Your task to perform on an android device: remove spam from my inbox in the gmail app Image 0: 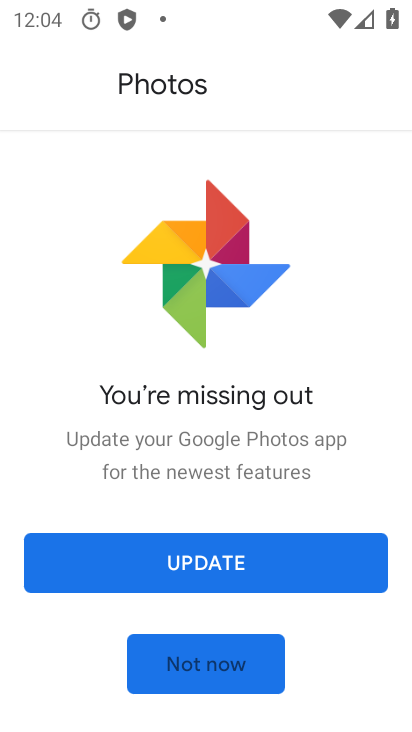
Step 0: press home button
Your task to perform on an android device: remove spam from my inbox in the gmail app Image 1: 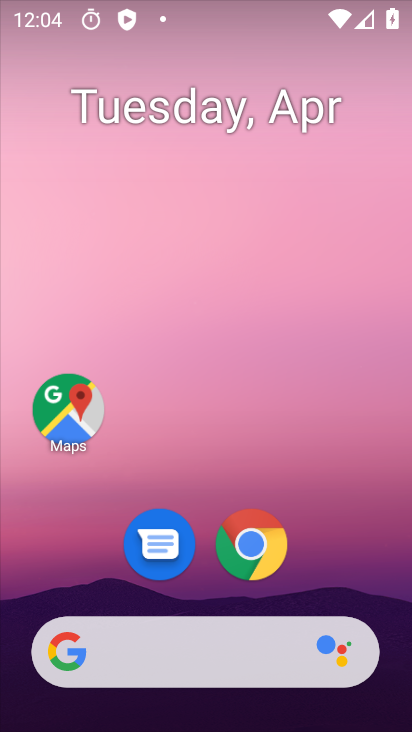
Step 1: drag from (341, 545) to (348, 17)
Your task to perform on an android device: remove spam from my inbox in the gmail app Image 2: 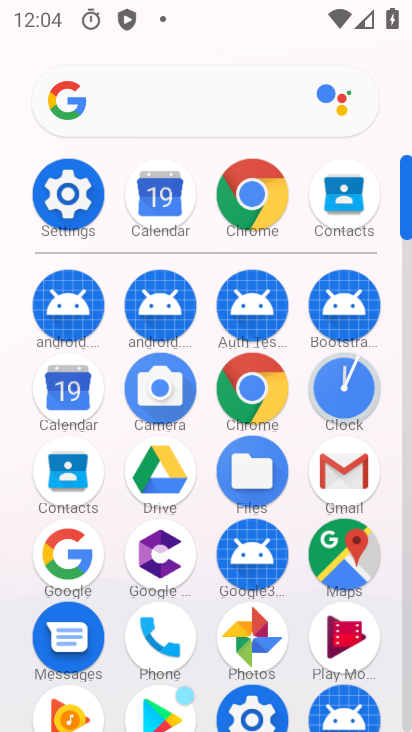
Step 2: click (355, 477)
Your task to perform on an android device: remove spam from my inbox in the gmail app Image 3: 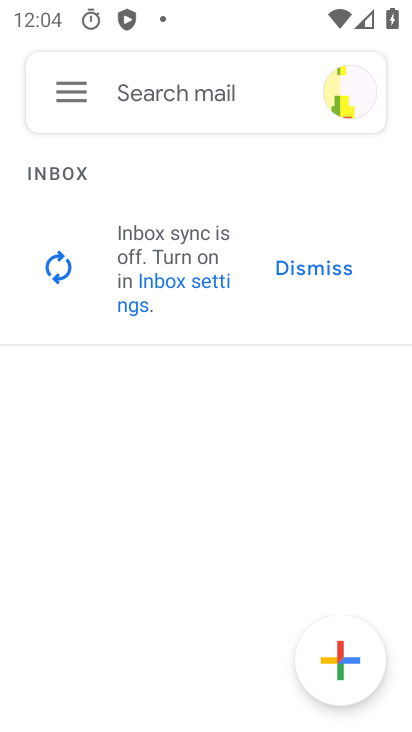
Step 3: click (78, 84)
Your task to perform on an android device: remove spam from my inbox in the gmail app Image 4: 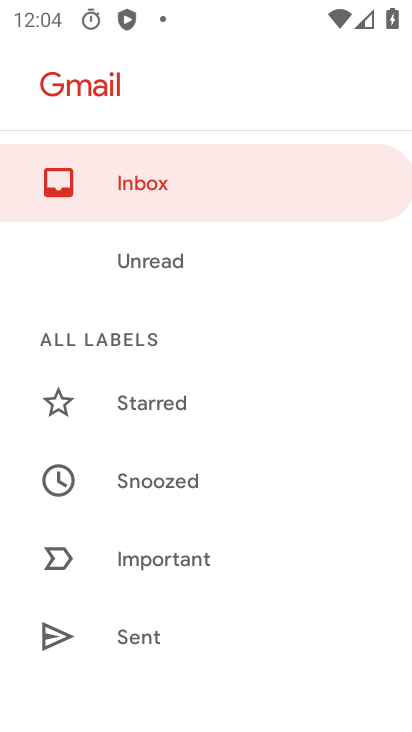
Step 4: drag from (304, 617) to (303, 325)
Your task to perform on an android device: remove spam from my inbox in the gmail app Image 5: 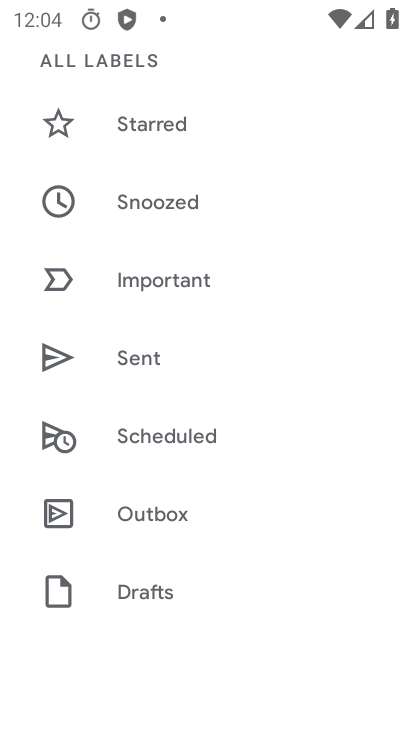
Step 5: drag from (291, 500) to (297, 235)
Your task to perform on an android device: remove spam from my inbox in the gmail app Image 6: 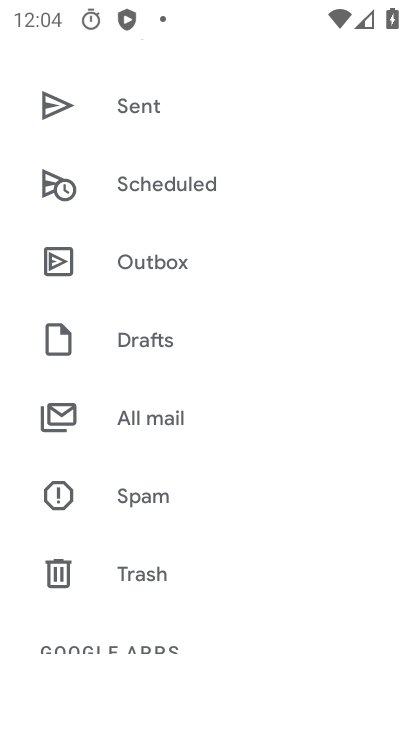
Step 6: click (146, 502)
Your task to perform on an android device: remove spam from my inbox in the gmail app Image 7: 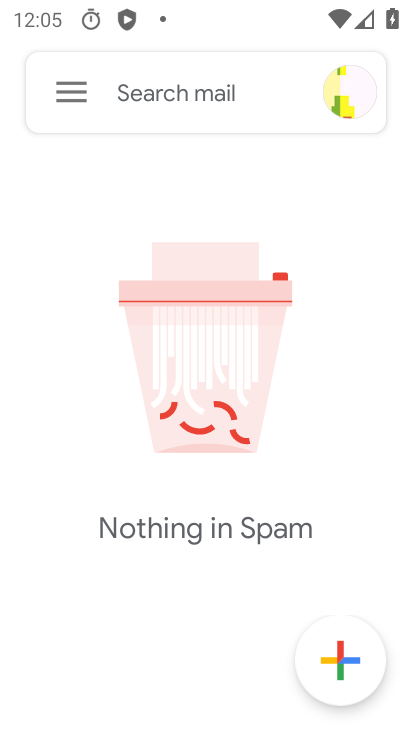
Step 7: task complete